Your task to perform on an android device: Open the Play Movies app and select the watchlist tab. Image 0: 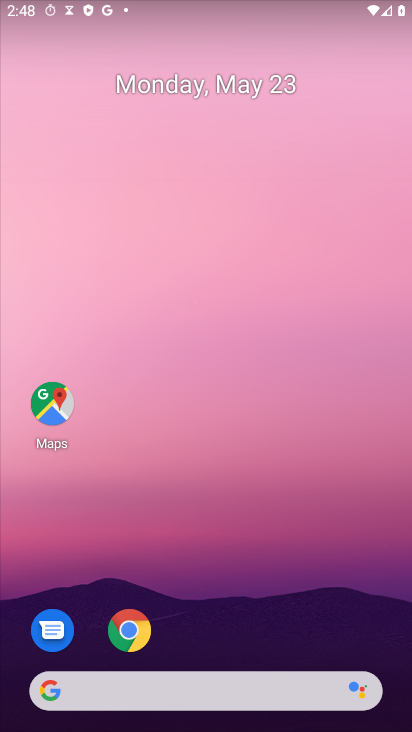
Step 0: drag from (322, 560) to (336, 27)
Your task to perform on an android device: Open the Play Movies app and select the watchlist tab. Image 1: 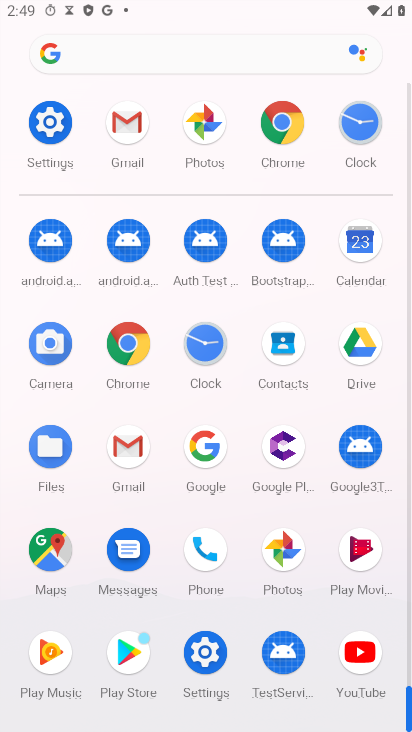
Step 1: click (365, 551)
Your task to perform on an android device: Open the Play Movies app and select the watchlist tab. Image 2: 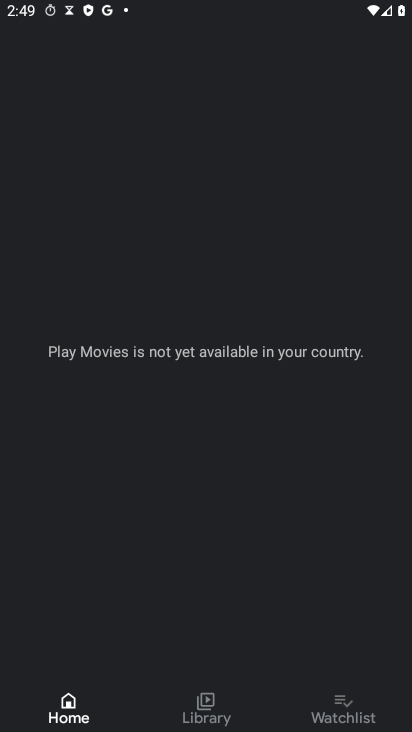
Step 2: click (357, 709)
Your task to perform on an android device: Open the Play Movies app and select the watchlist tab. Image 3: 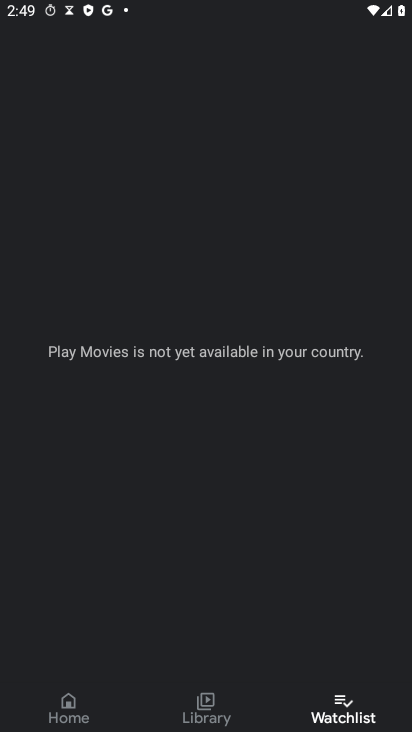
Step 3: task complete